Your task to perform on an android device: search for starred emails in the gmail app Image 0: 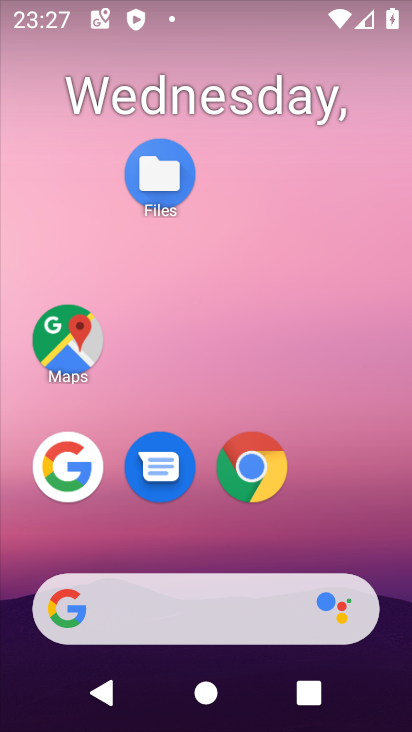
Step 0: drag from (188, 566) to (84, 135)
Your task to perform on an android device: search for starred emails in the gmail app Image 1: 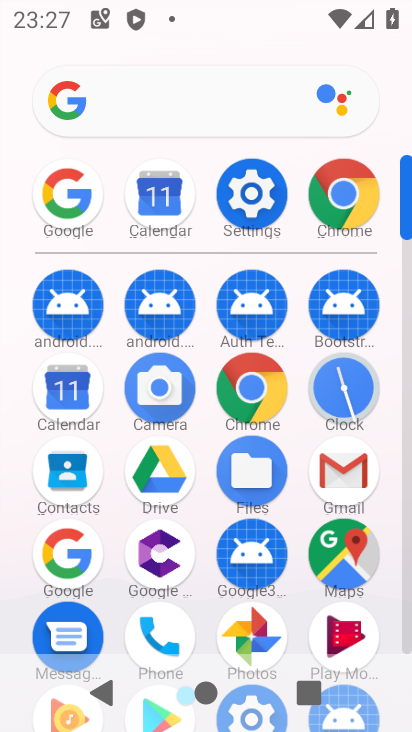
Step 1: click (342, 491)
Your task to perform on an android device: search for starred emails in the gmail app Image 2: 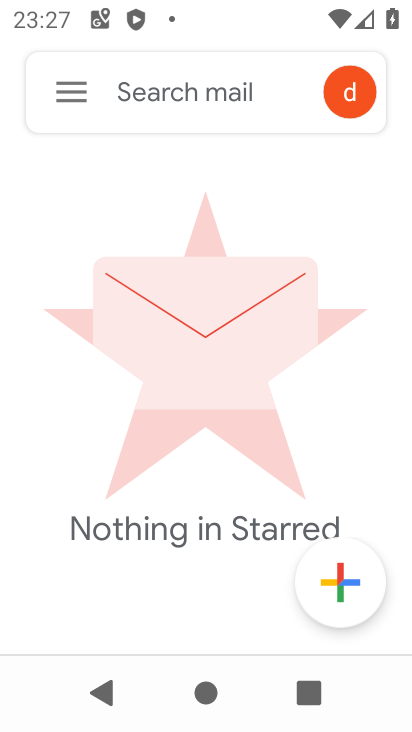
Step 2: click (64, 88)
Your task to perform on an android device: search for starred emails in the gmail app Image 3: 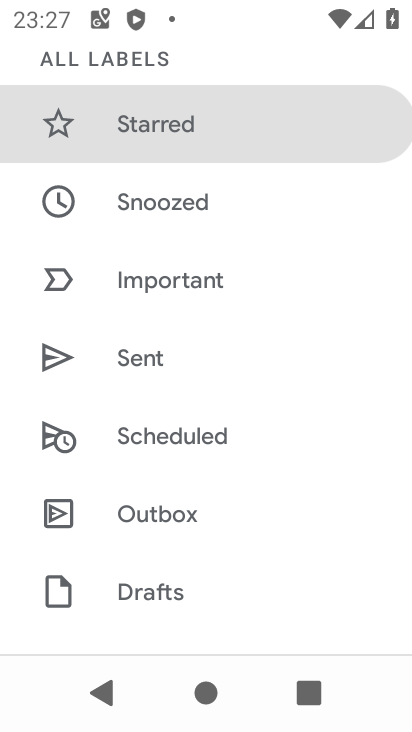
Step 3: click (120, 134)
Your task to perform on an android device: search for starred emails in the gmail app Image 4: 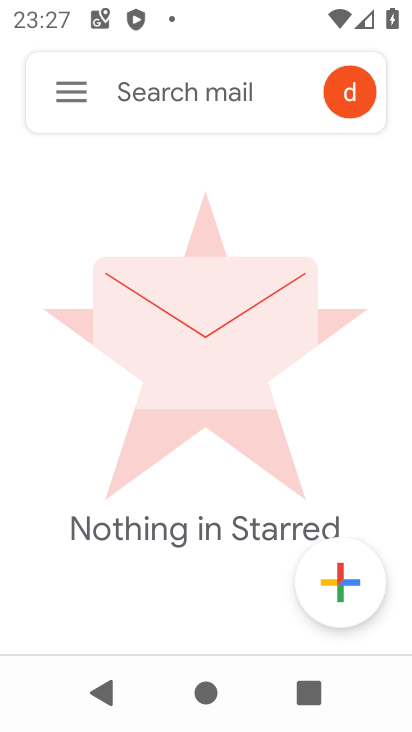
Step 4: task complete